Your task to perform on an android device: turn on javascript in the chrome app Image 0: 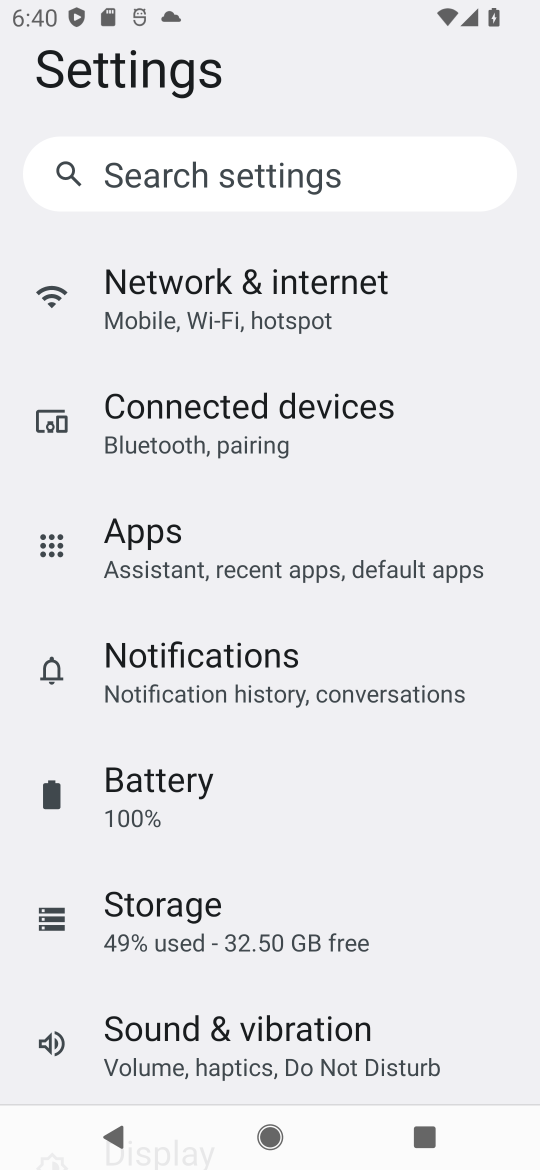
Step 0: press home button
Your task to perform on an android device: turn on javascript in the chrome app Image 1: 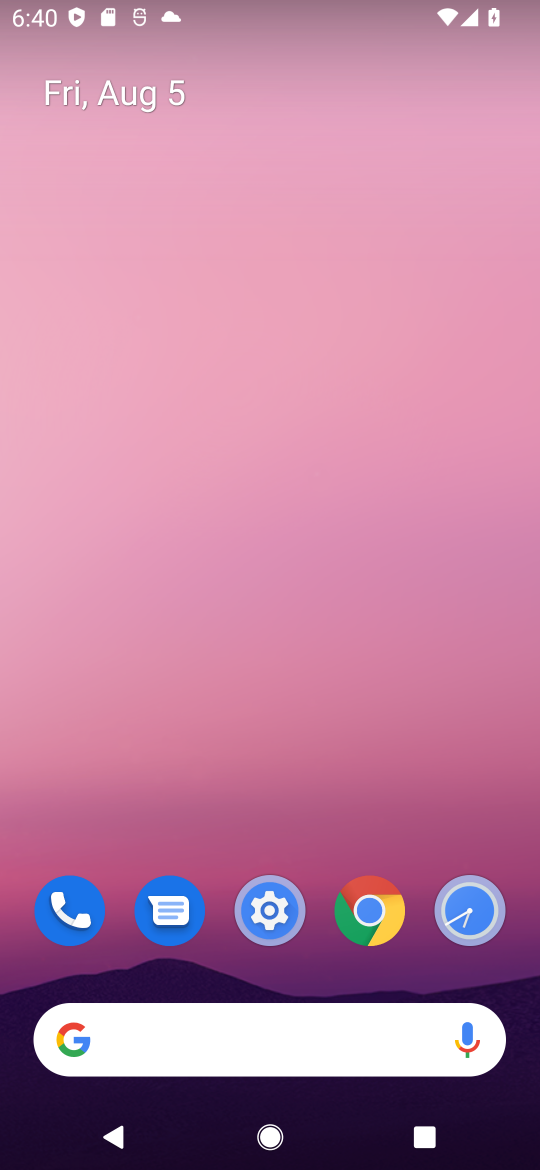
Step 1: drag from (212, 1024) to (202, 28)
Your task to perform on an android device: turn on javascript in the chrome app Image 2: 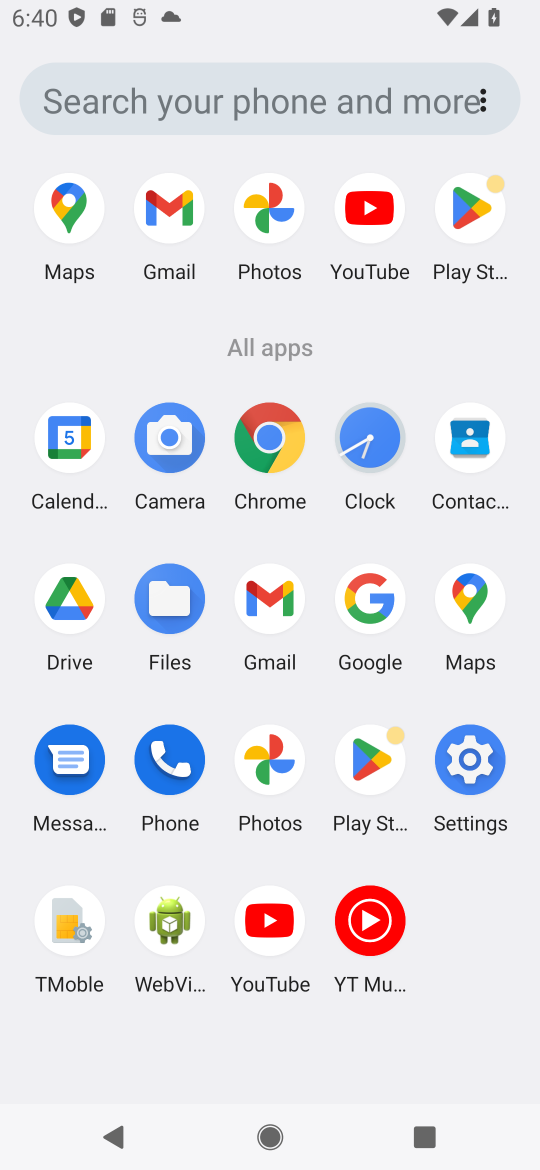
Step 2: click (268, 448)
Your task to perform on an android device: turn on javascript in the chrome app Image 3: 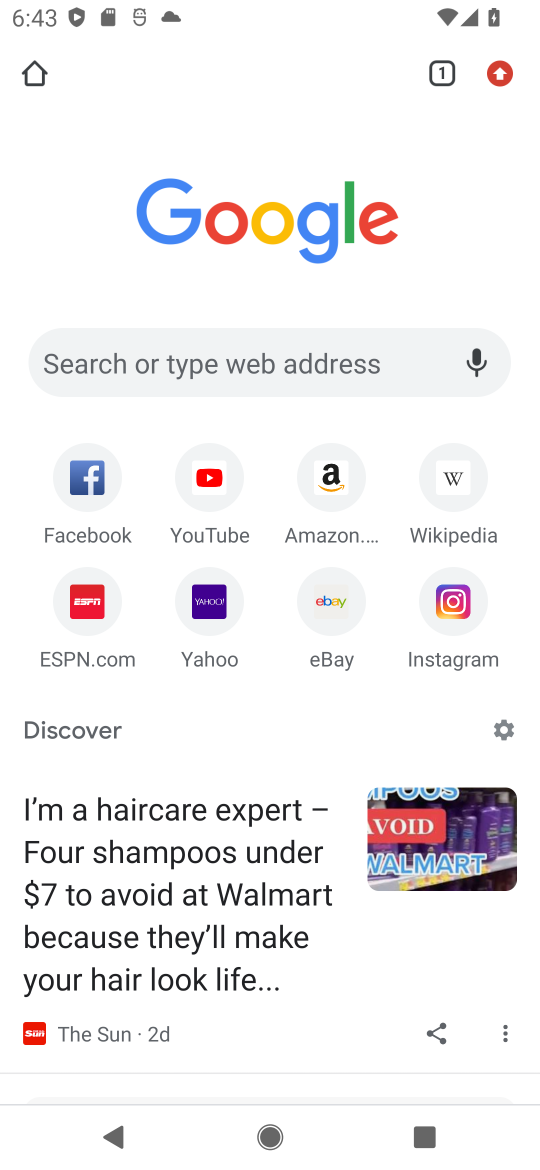
Step 3: click (503, 66)
Your task to perform on an android device: turn on javascript in the chrome app Image 4: 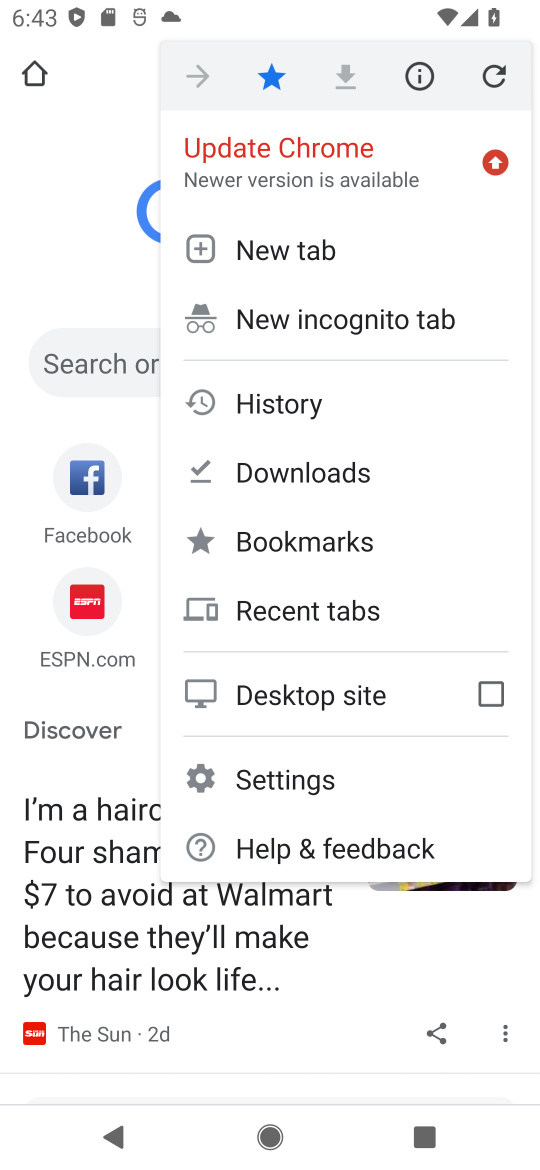
Step 4: click (271, 771)
Your task to perform on an android device: turn on javascript in the chrome app Image 5: 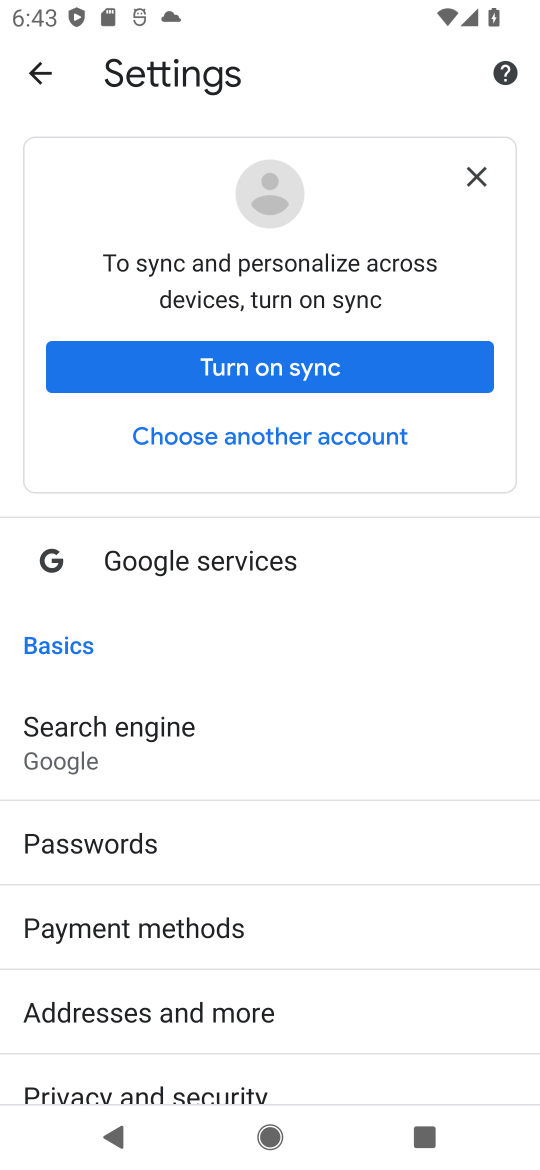
Step 5: drag from (275, 864) to (256, 203)
Your task to perform on an android device: turn on javascript in the chrome app Image 6: 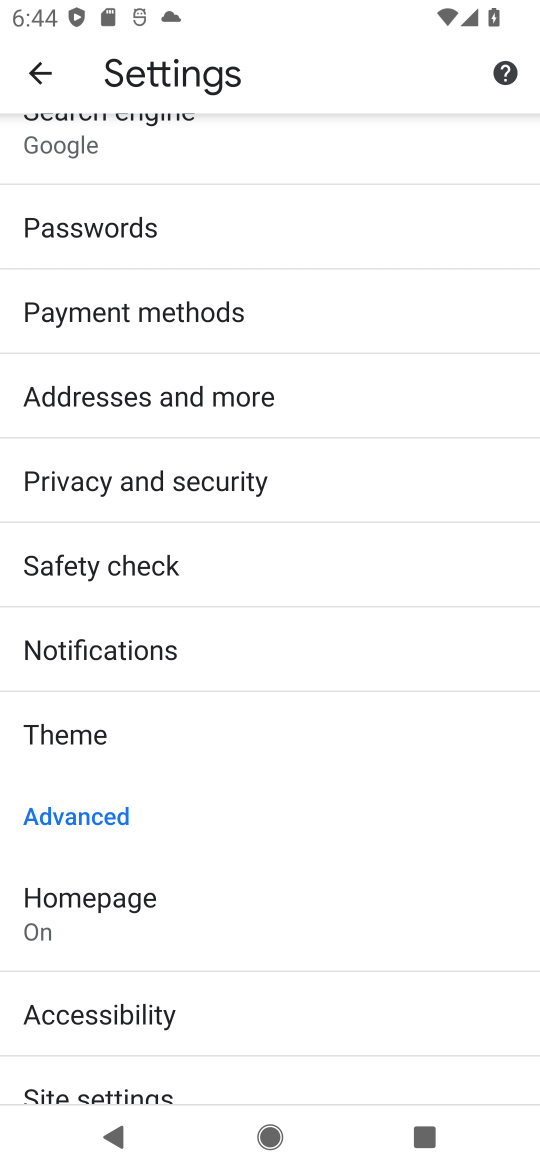
Step 6: drag from (296, 1035) to (367, 417)
Your task to perform on an android device: turn on javascript in the chrome app Image 7: 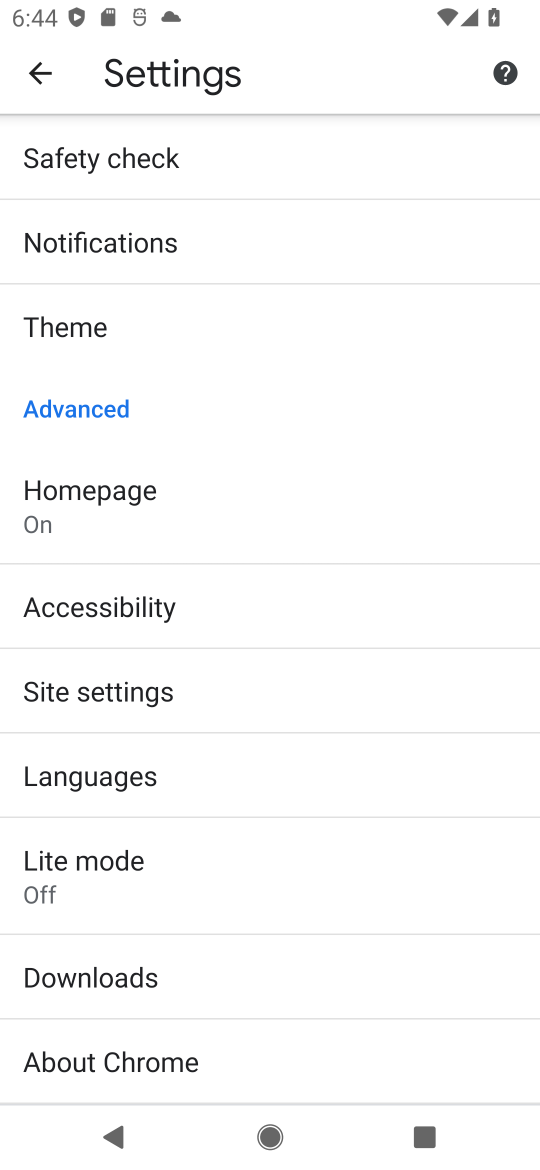
Step 7: click (150, 685)
Your task to perform on an android device: turn on javascript in the chrome app Image 8: 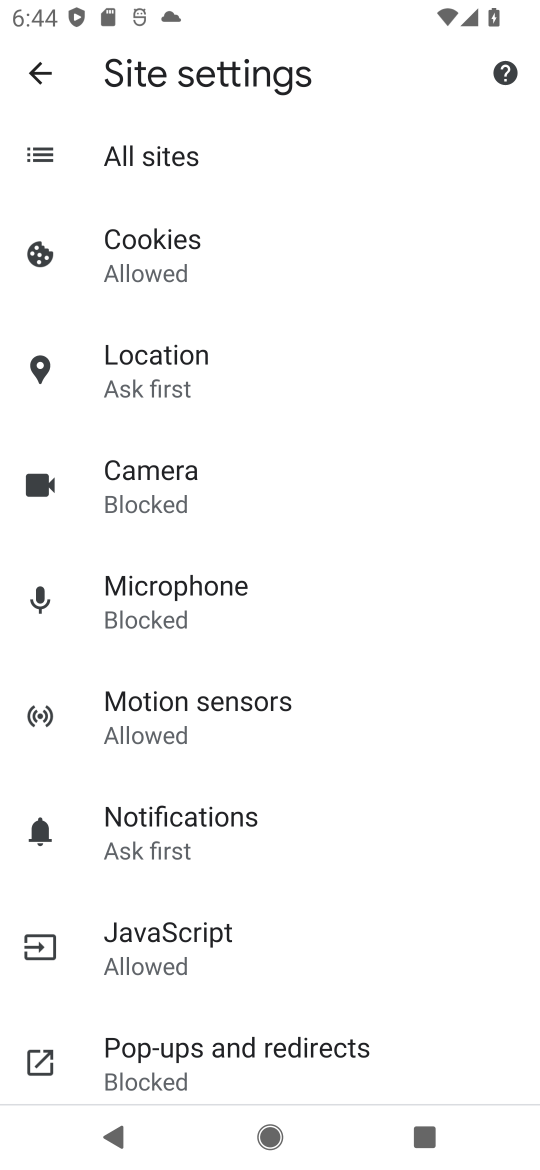
Step 8: click (211, 940)
Your task to perform on an android device: turn on javascript in the chrome app Image 9: 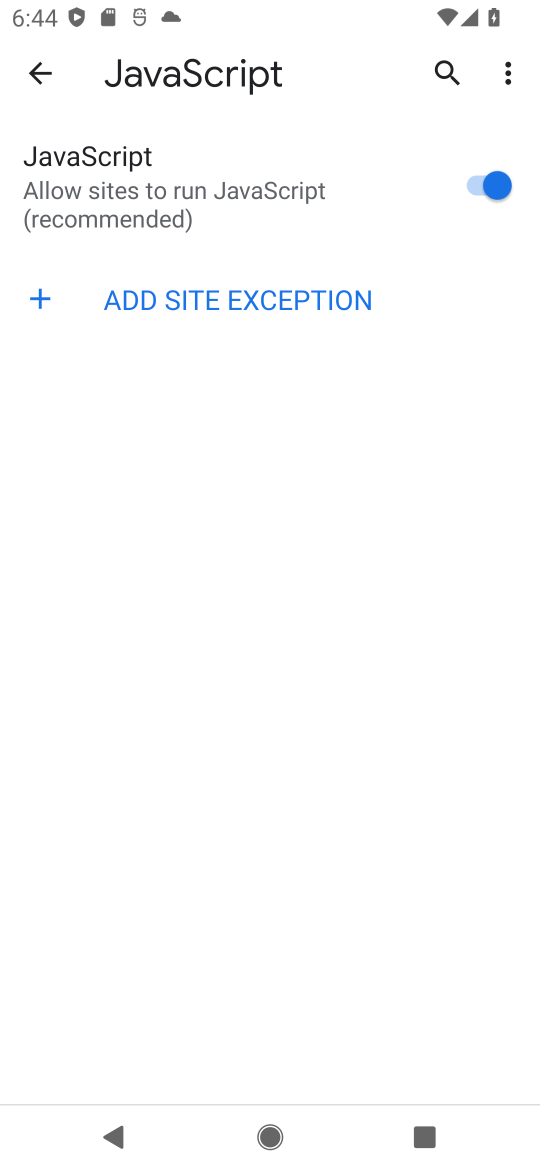
Step 9: task complete